Your task to perform on an android device: check android version Image 0: 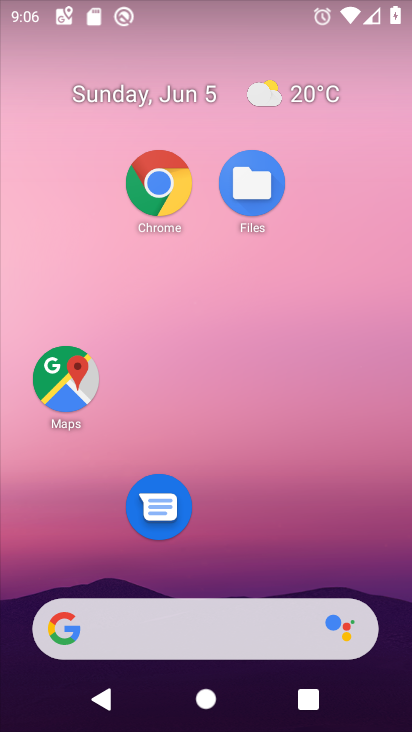
Step 0: drag from (238, 563) to (139, 204)
Your task to perform on an android device: check android version Image 1: 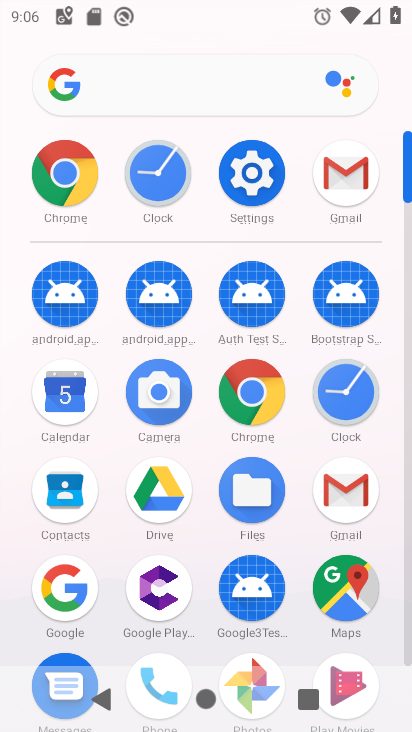
Step 1: click (270, 166)
Your task to perform on an android device: check android version Image 2: 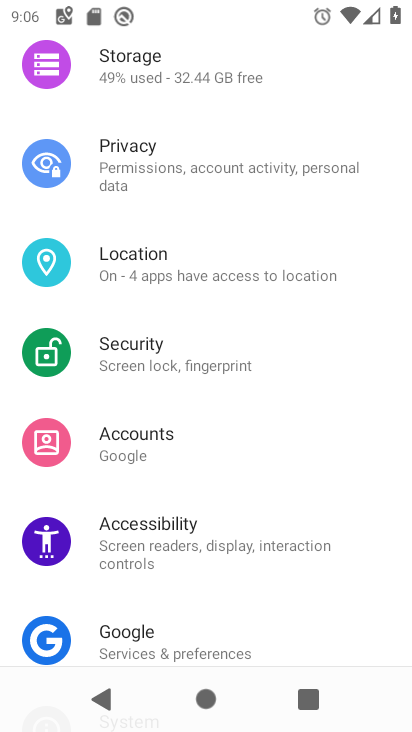
Step 2: drag from (229, 520) to (173, 47)
Your task to perform on an android device: check android version Image 3: 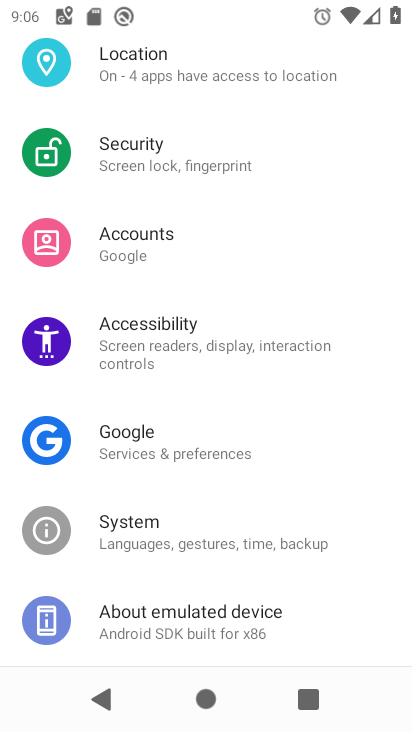
Step 3: click (121, 631)
Your task to perform on an android device: check android version Image 4: 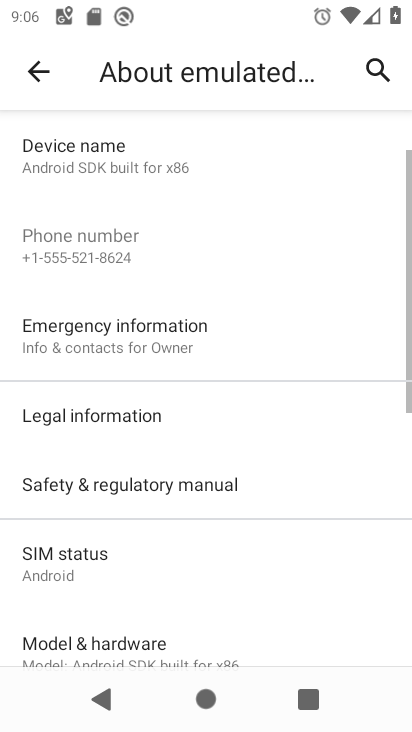
Step 4: drag from (141, 601) to (153, 156)
Your task to perform on an android device: check android version Image 5: 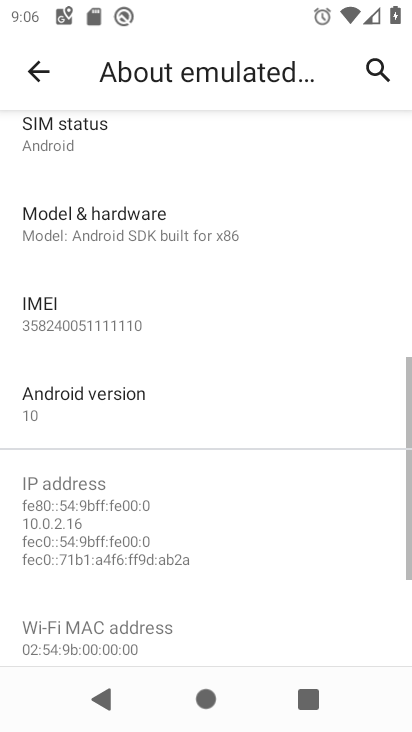
Step 5: click (76, 399)
Your task to perform on an android device: check android version Image 6: 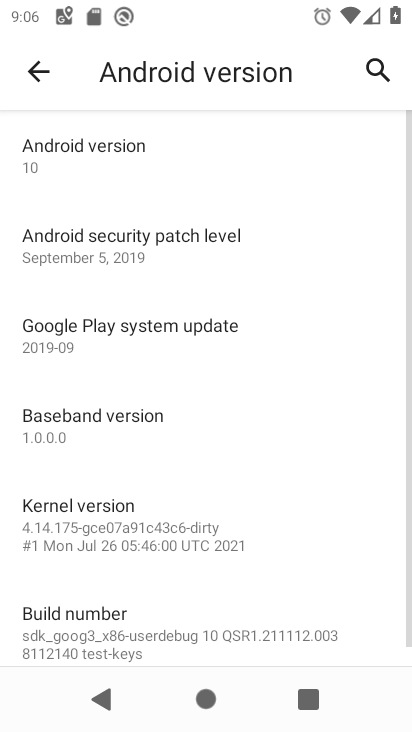
Step 6: click (94, 189)
Your task to perform on an android device: check android version Image 7: 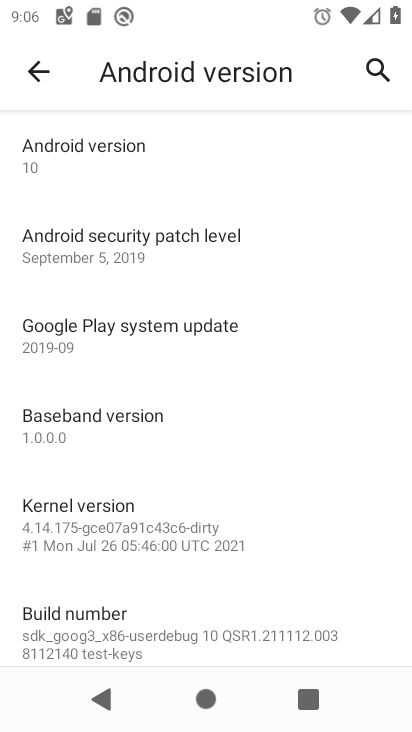
Step 7: task complete